Your task to perform on an android device: check data usage Image 0: 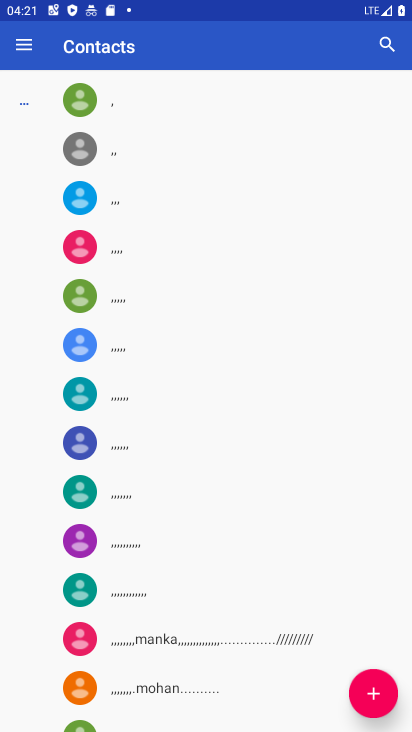
Step 0: press home button
Your task to perform on an android device: check data usage Image 1: 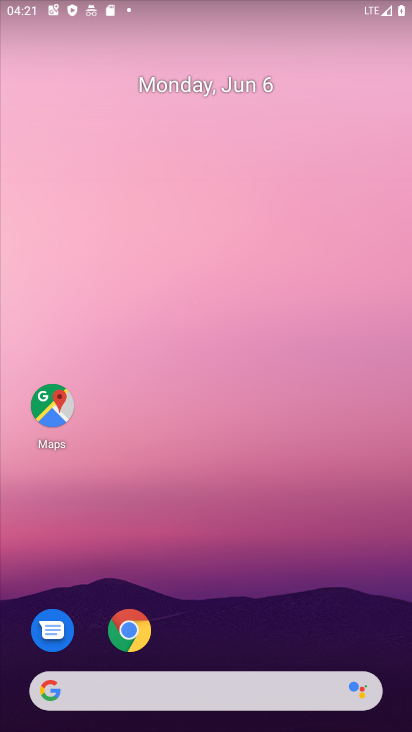
Step 1: drag from (204, 0) to (292, 620)
Your task to perform on an android device: check data usage Image 2: 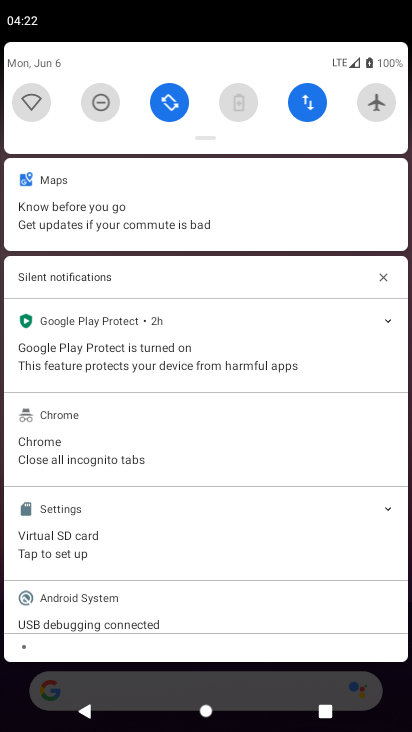
Step 2: click (295, 114)
Your task to perform on an android device: check data usage Image 3: 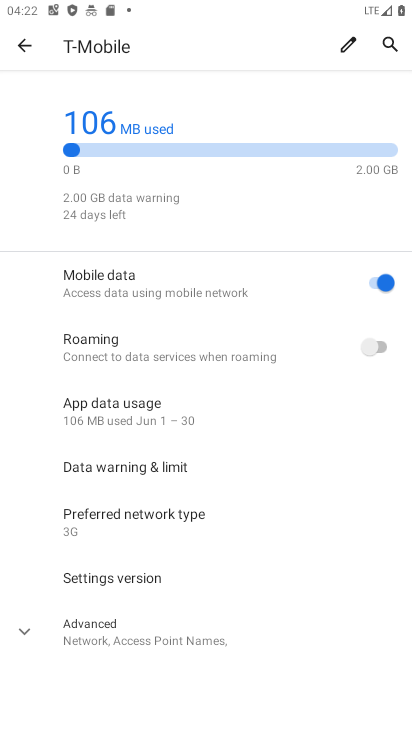
Step 3: task complete